Your task to perform on an android device: change keyboard looks Image 0: 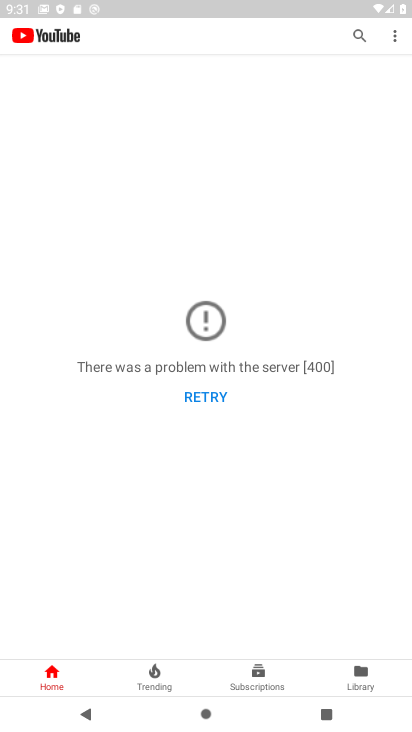
Step 0: drag from (224, 610) to (402, 153)
Your task to perform on an android device: change keyboard looks Image 1: 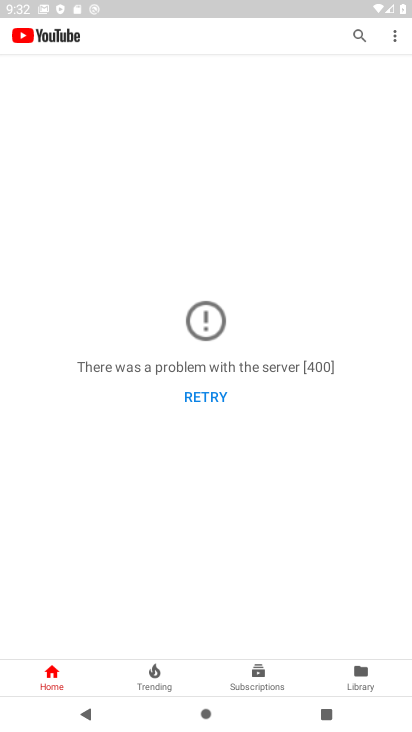
Step 1: press home button
Your task to perform on an android device: change keyboard looks Image 2: 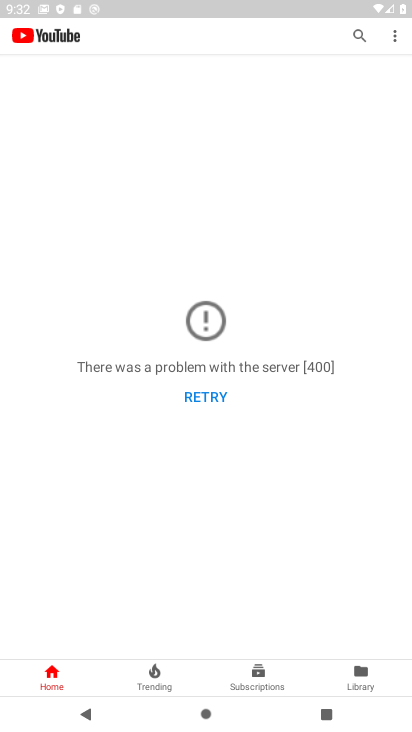
Step 2: drag from (402, 153) to (380, 300)
Your task to perform on an android device: change keyboard looks Image 3: 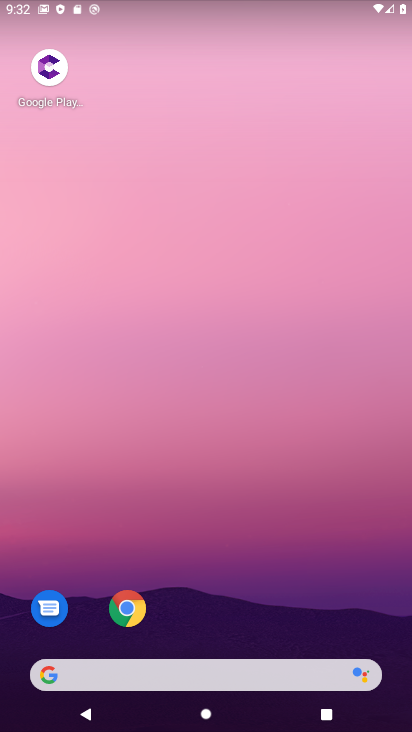
Step 3: drag from (256, 593) to (195, 49)
Your task to perform on an android device: change keyboard looks Image 4: 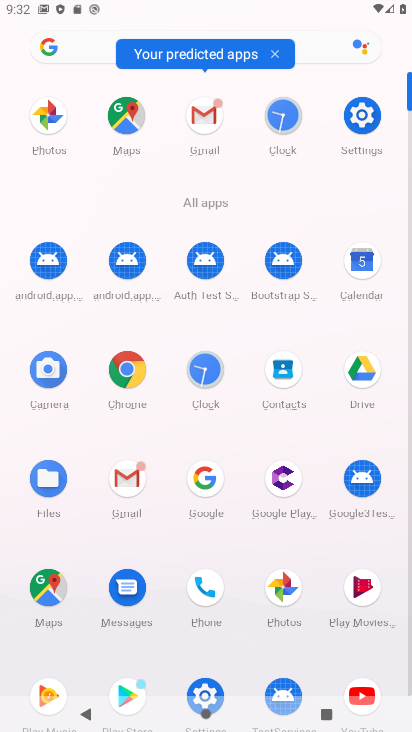
Step 4: drag from (244, 651) to (261, 189)
Your task to perform on an android device: change keyboard looks Image 5: 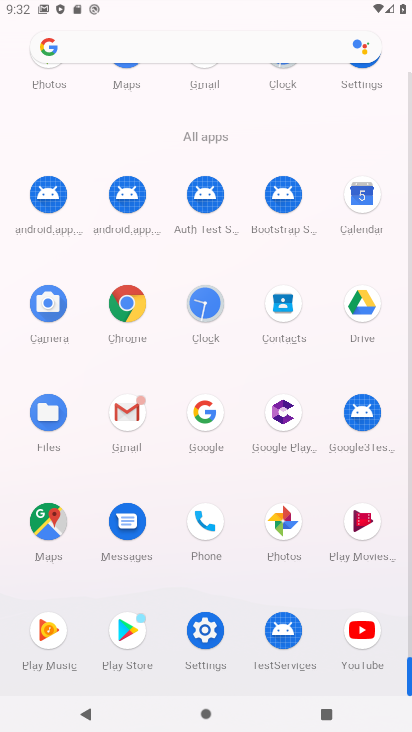
Step 5: click (209, 624)
Your task to perform on an android device: change keyboard looks Image 6: 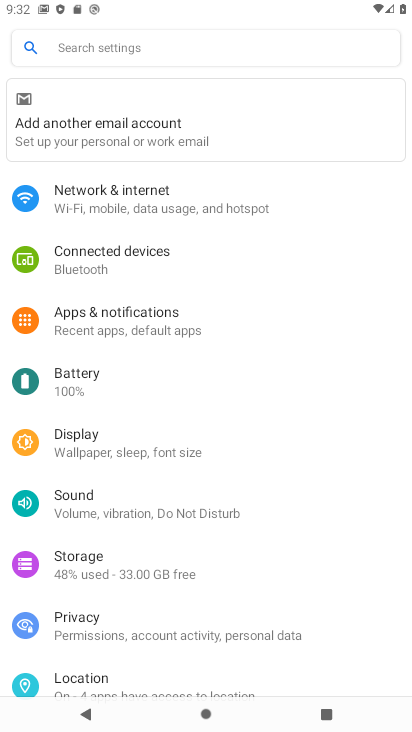
Step 6: drag from (258, 660) to (153, 175)
Your task to perform on an android device: change keyboard looks Image 7: 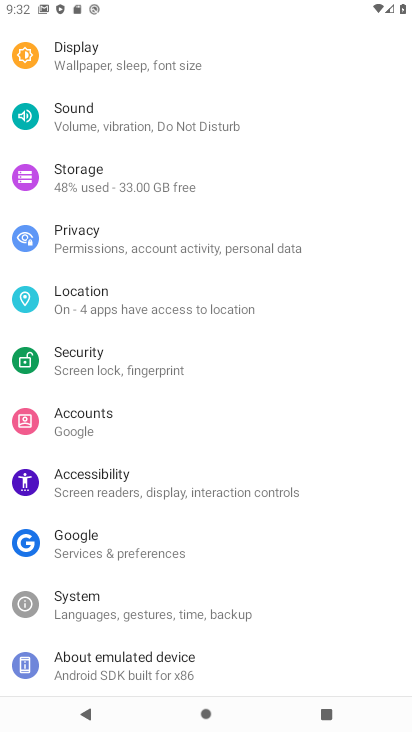
Step 7: click (91, 614)
Your task to perform on an android device: change keyboard looks Image 8: 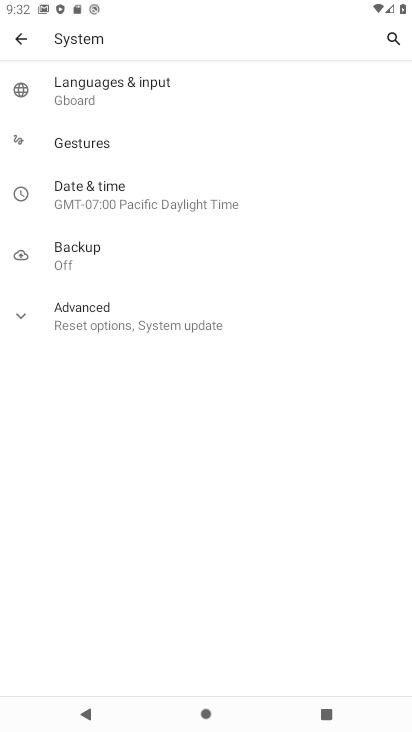
Step 8: click (107, 78)
Your task to perform on an android device: change keyboard looks Image 9: 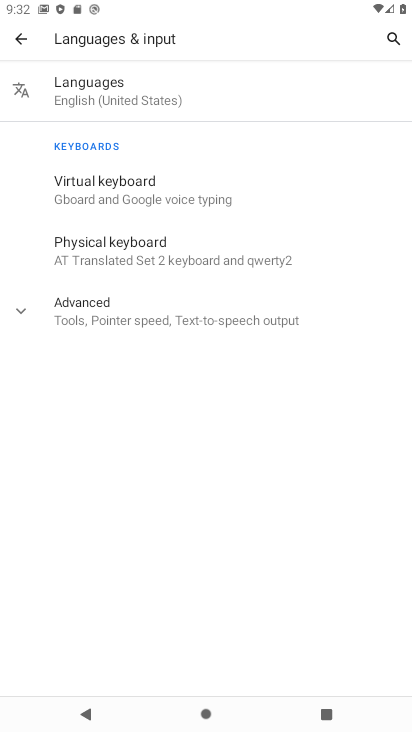
Step 9: click (134, 191)
Your task to perform on an android device: change keyboard looks Image 10: 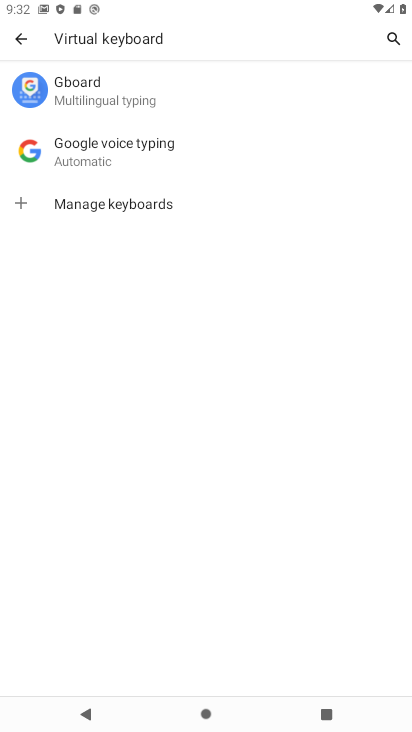
Step 10: click (63, 95)
Your task to perform on an android device: change keyboard looks Image 11: 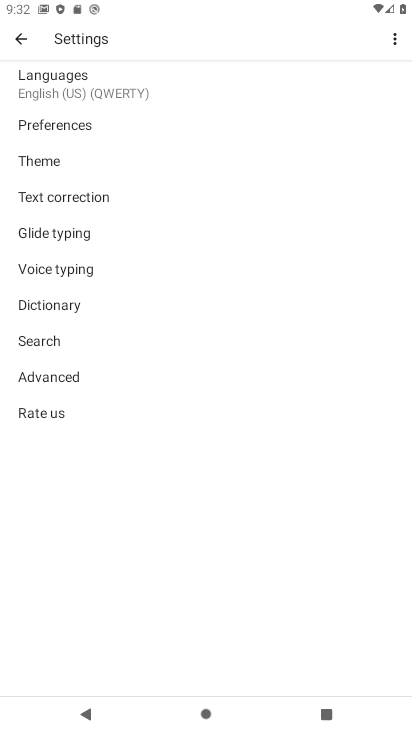
Step 11: click (40, 154)
Your task to perform on an android device: change keyboard looks Image 12: 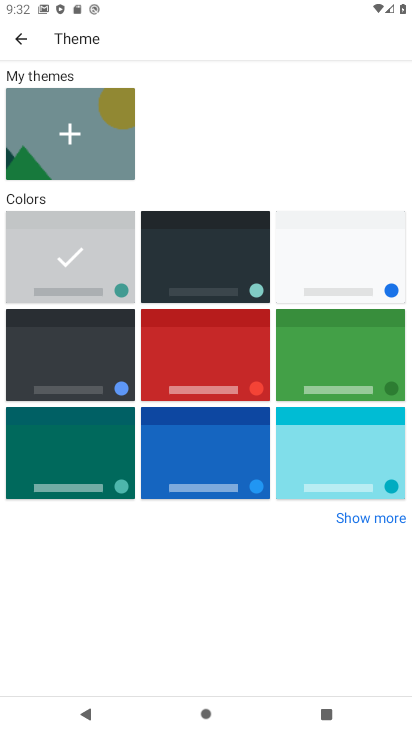
Step 12: click (208, 276)
Your task to perform on an android device: change keyboard looks Image 13: 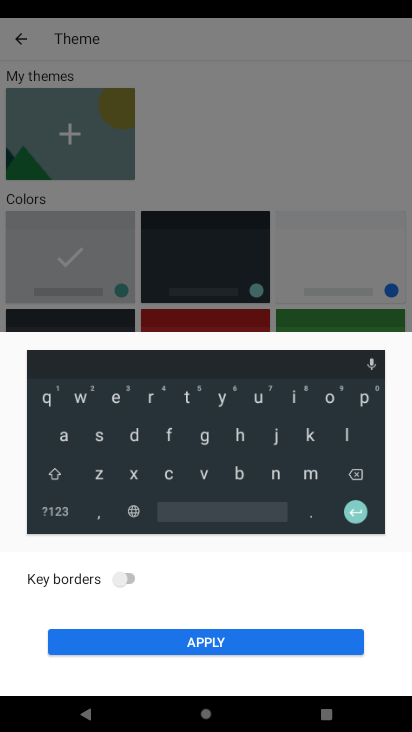
Step 13: click (267, 640)
Your task to perform on an android device: change keyboard looks Image 14: 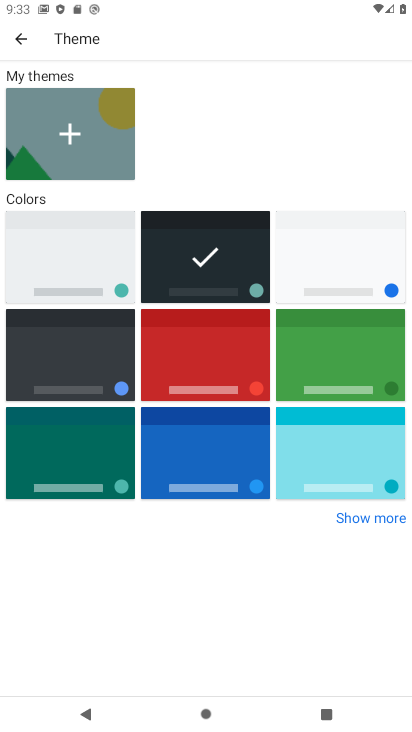
Step 14: task complete